Your task to perform on an android device: Play the last video I watched on Youtube Image 0: 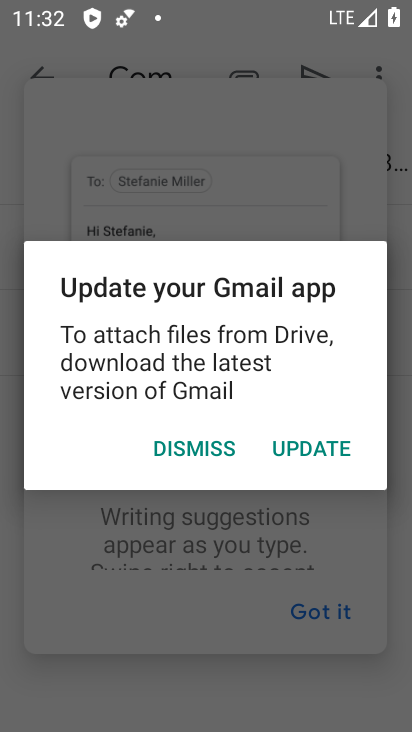
Step 0: drag from (195, 546) to (255, 58)
Your task to perform on an android device: Play the last video I watched on Youtube Image 1: 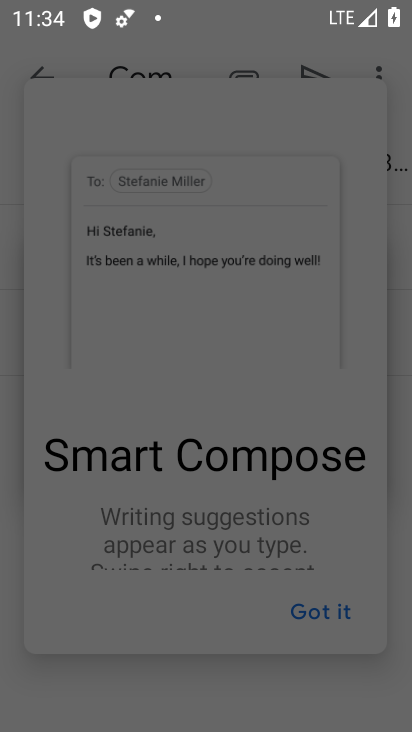
Step 1: click (344, 598)
Your task to perform on an android device: Play the last video I watched on Youtube Image 2: 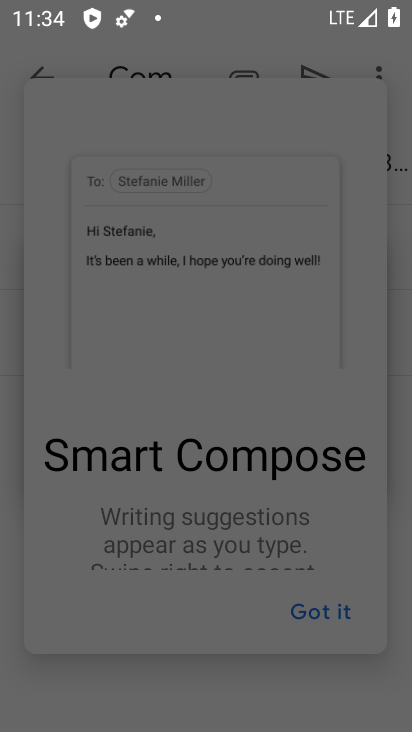
Step 2: click (341, 595)
Your task to perform on an android device: Play the last video I watched on Youtube Image 3: 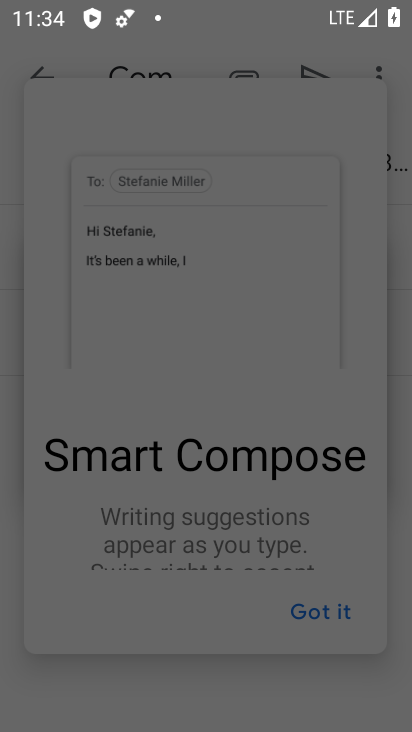
Step 3: press back button
Your task to perform on an android device: Play the last video I watched on Youtube Image 4: 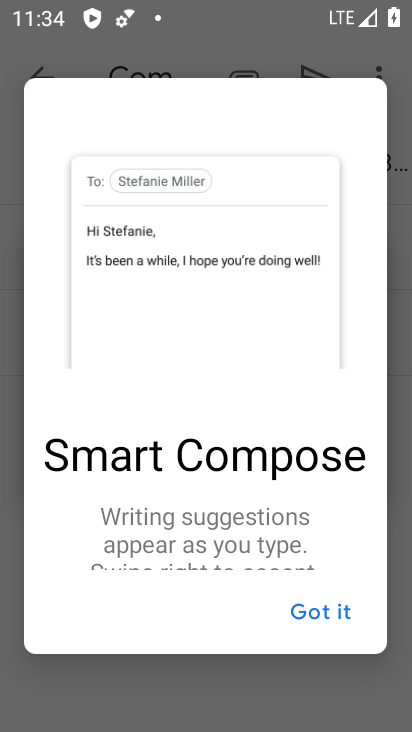
Step 4: click (309, 621)
Your task to perform on an android device: Play the last video I watched on Youtube Image 5: 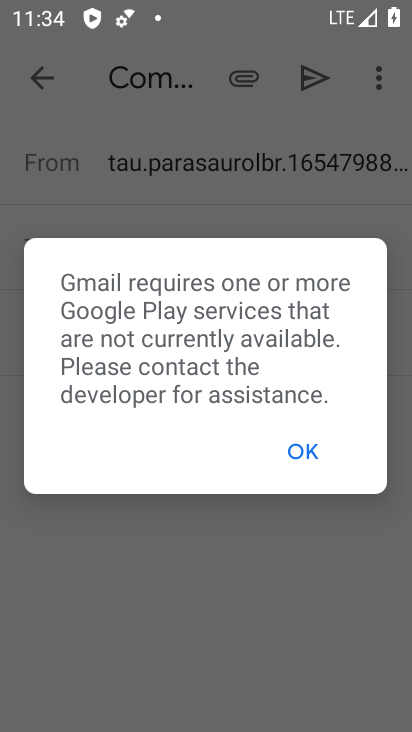
Step 5: click (302, 434)
Your task to perform on an android device: Play the last video I watched on Youtube Image 6: 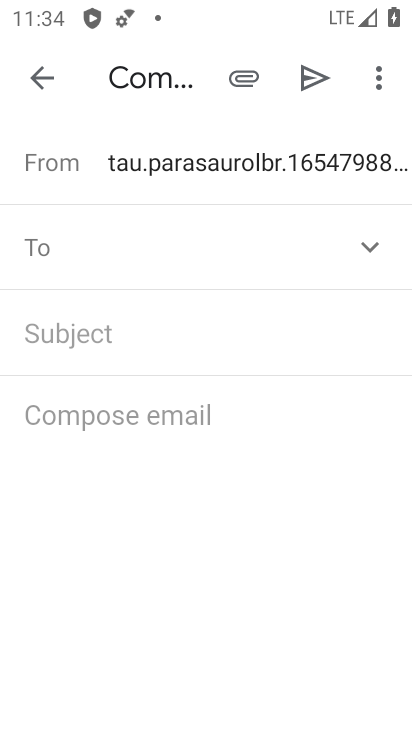
Step 6: press home button
Your task to perform on an android device: Play the last video I watched on Youtube Image 7: 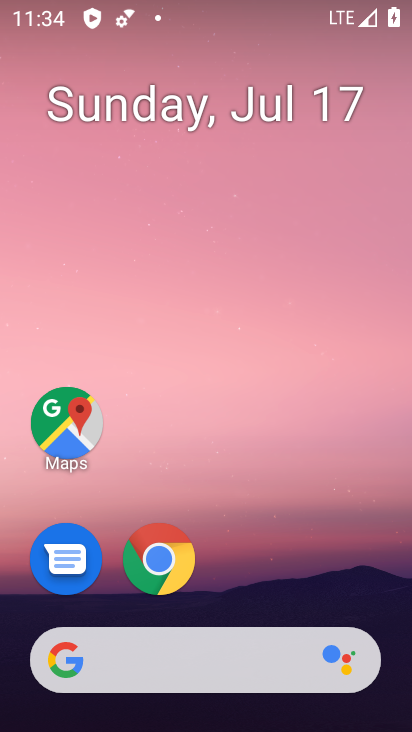
Step 7: drag from (268, 542) to (295, 1)
Your task to perform on an android device: Play the last video I watched on Youtube Image 8: 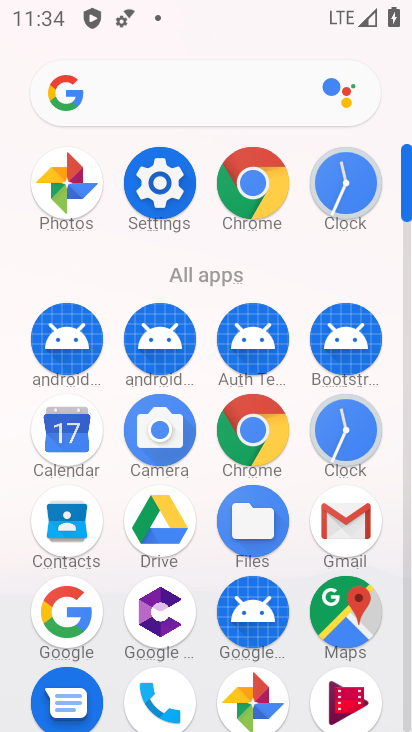
Step 8: drag from (222, 444) to (271, 14)
Your task to perform on an android device: Play the last video I watched on Youtube Image 9: 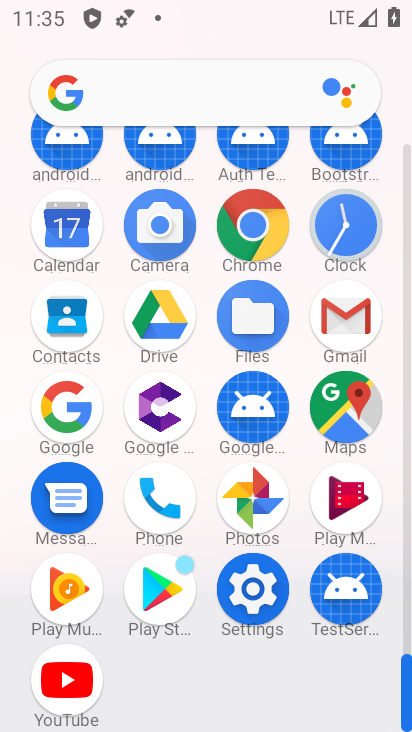
Step 9: click (79, 682)
Your task to perform on an android device: Play the last video I watched on Youtube Image 10: 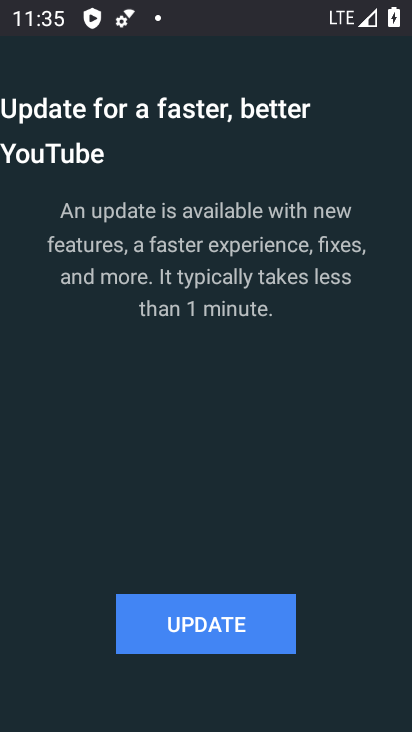
Step 10: click (190, 616)
Your task to perform on an android device: Play the last video I watched on Youtube Image 11: 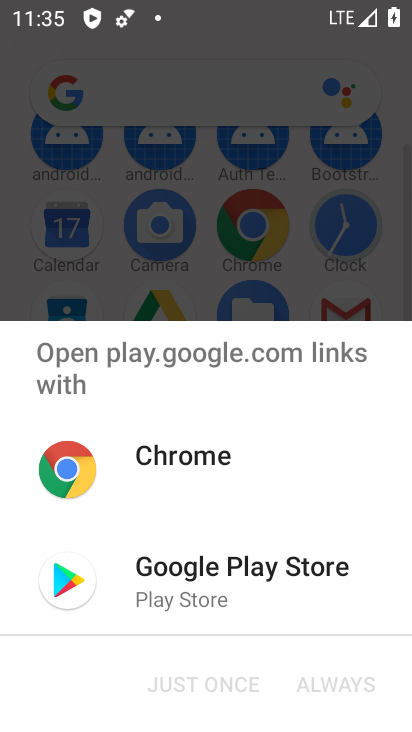
Step 11: click (173, 597)
Your task to perform on an android device: Play the last video I watched on Youtube Image 12: 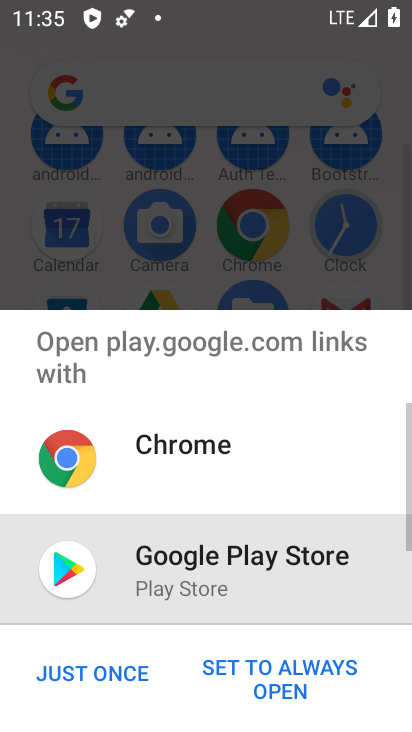
Step 12: click (121, 667)
Your task to perform on an android device: Play the last video I watched on Youtube Image 13: 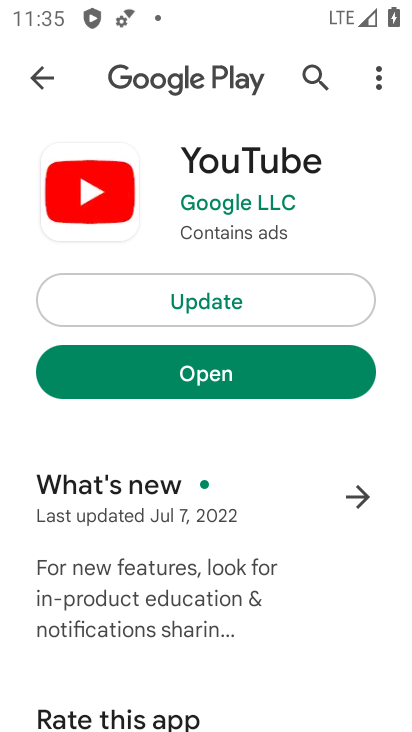
Step 13: click (215, 295)
Your task to perform on an android device: Play the last video I watched on Youtube Image 14: 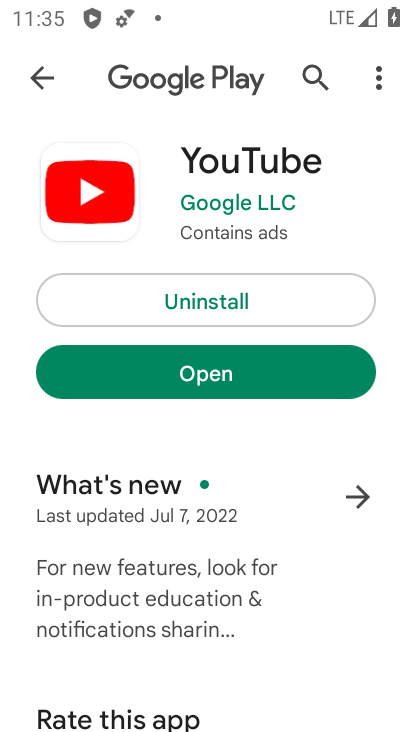
Step 14: click (221, 372)
Your task to perform on an android device: Play the last video I watched on Youtube Image 15: 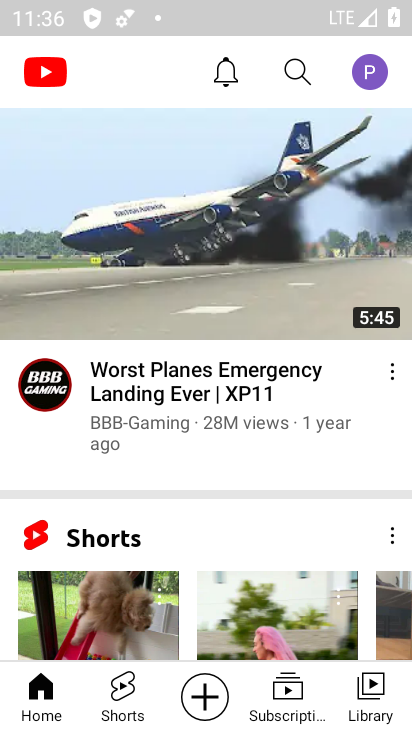
Step 15: click (370, 697)
Your task to perform on an android device: Play the last video I watched on Youtube Image 16: 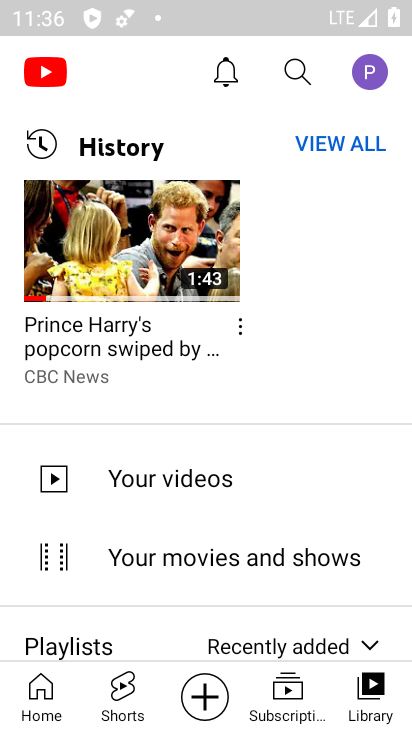
Step 16: click (141, 265)
Your task to perform on an android device: Play the last video I watched on Youtube Image 17: 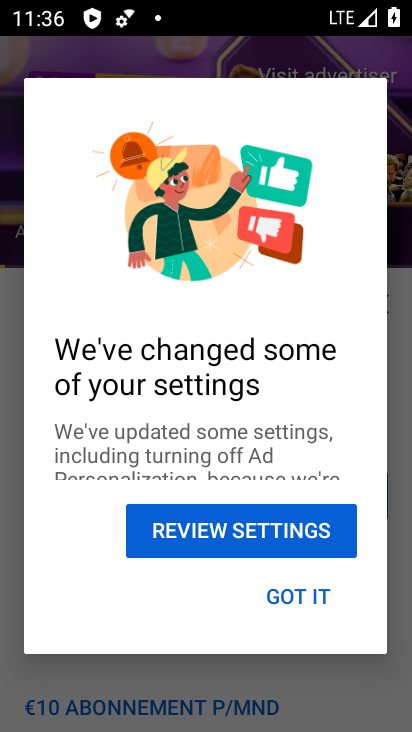
Step 17: click (310, 598)
Your task to perform on an android device: Play the last video I watched on Youtube Image 18: 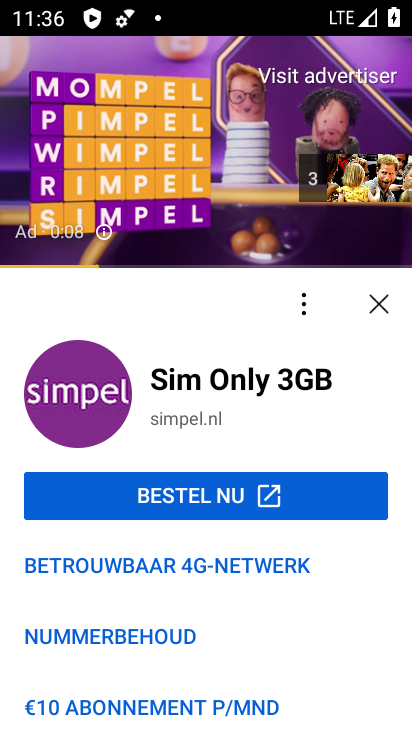
Step 18: click (173, 129)
Your task to perform on an android device: Play the last video I watched on Youtube Image 19: 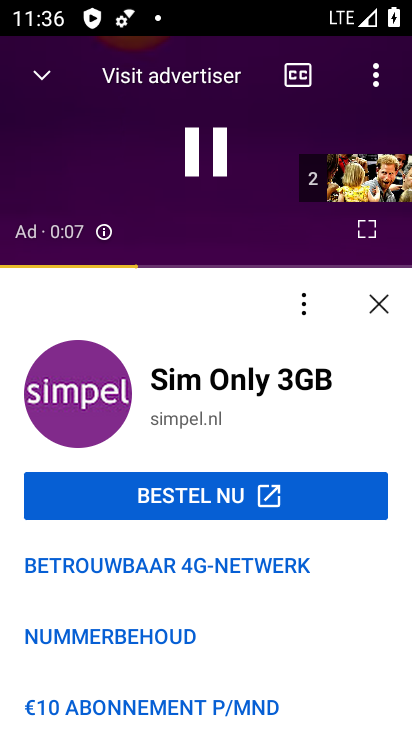
Step 19: click (200, 144)
Your task to perform on an android device: Play the last video I watched on Youtube Image 20: 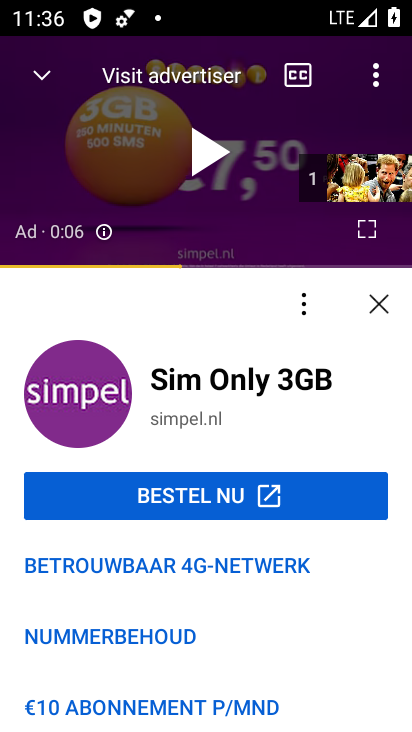
Step 20: task complete